Your task to perform on an android device: See recent photos Image 0: 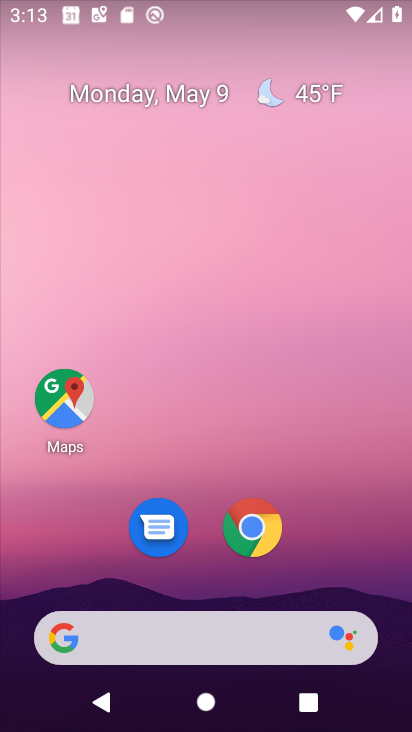
Step 0: drag from (255, 557) to (260, 98)
Your task to perform on an android device: See recent photos Image 1: 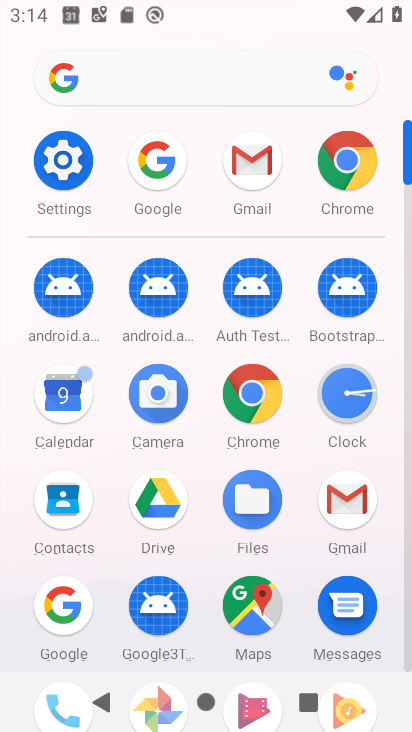
Step 1: drag from (167, 488) to (175, 286)
Your task to perform on an android device: See recent photos Image 2: 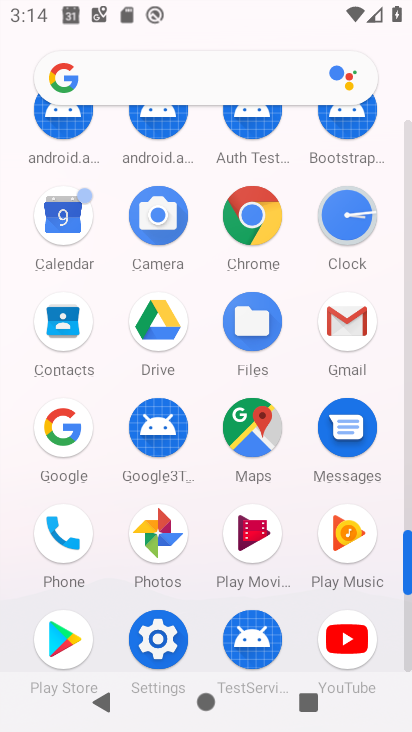
Step 2: click (157, 537)
Your task to perform on an android device: See recent photos Image 3: 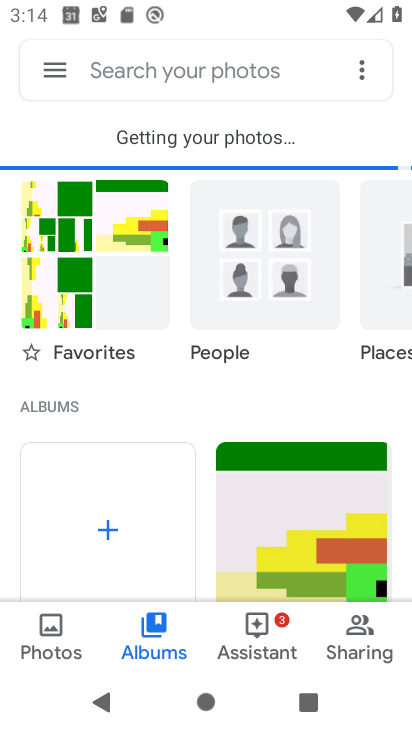
Step 3: click (54, 636)
Your task to perform on an android device: See recent photos Image 4: 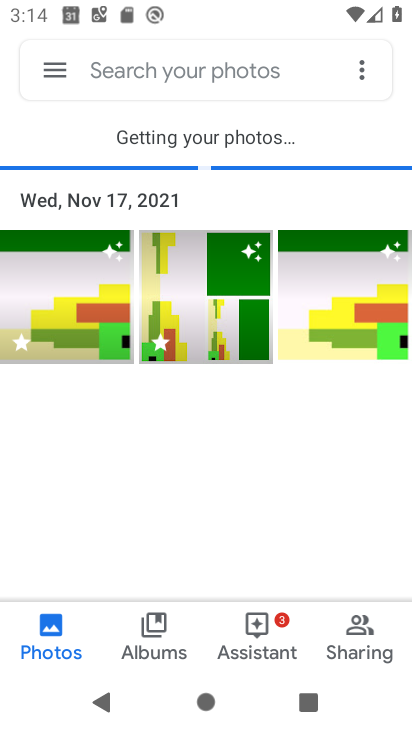
Step 4: task complete